Your task to perform on an android device: open wifi settings Image 0: 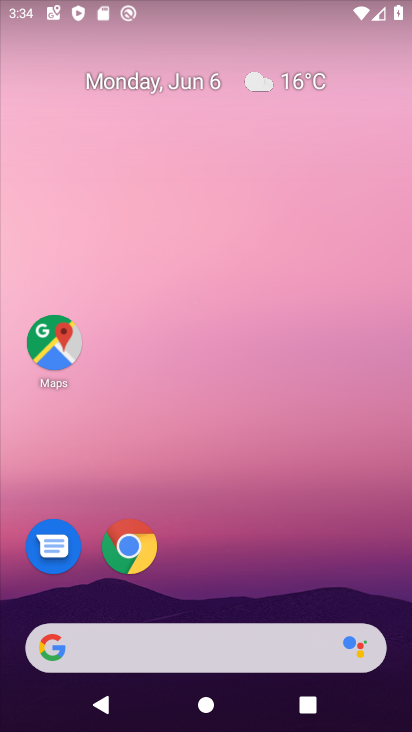
Step 0: drag from (282, 555) to (234, 1)
Your task to perform on an android device: open wifi settings Image 1: 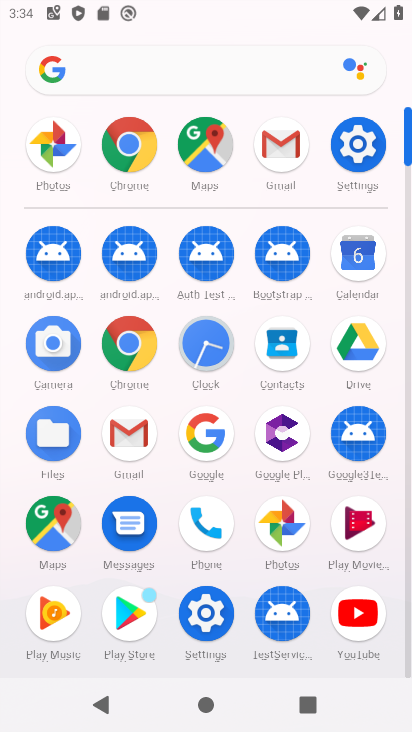
Step 1: click (361, 155)
Your task to perform on an android device: open wifi settings Image 2: 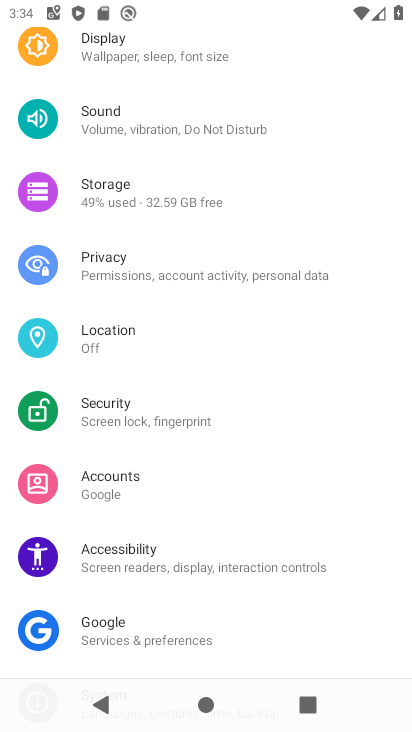
Step 2: drag from (185, 225) to (228, 655)
Your task to perform on an android device: open wifi settings Image 3: 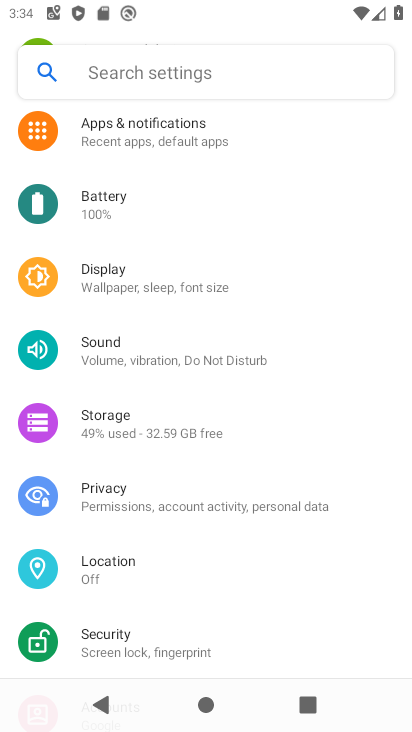
Step 3: drag from (182, 168) to (238, 642)
Your task to perform on an android device: open wifi settings Image 4: 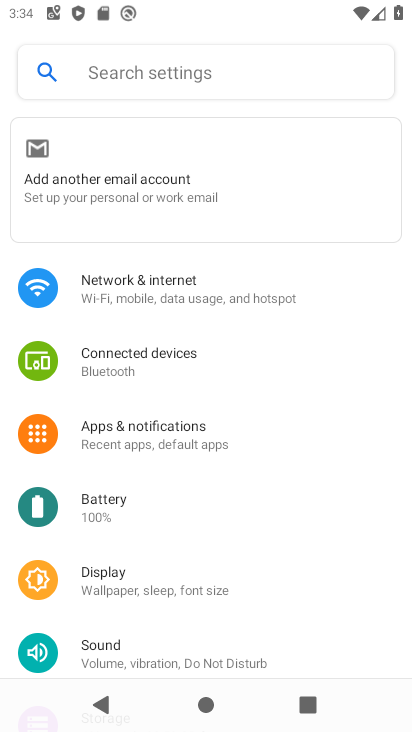
Step 4: click (154, 286)
Your task to perform on an android device: open wifi settings Image 5: 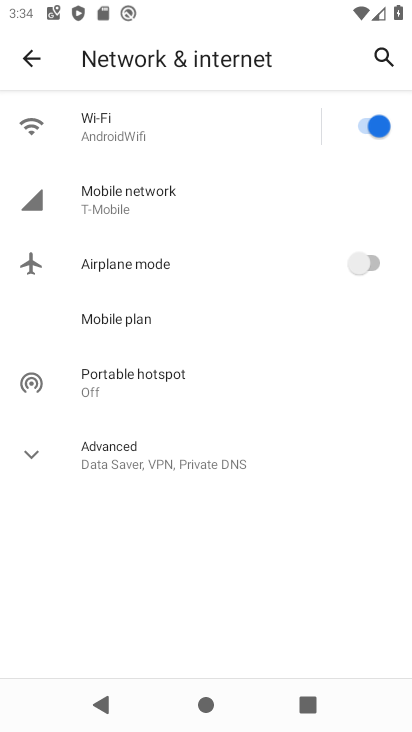
Step 5: click (111, 122)
Your task to perform on an android device: open wifi settings Image 6: 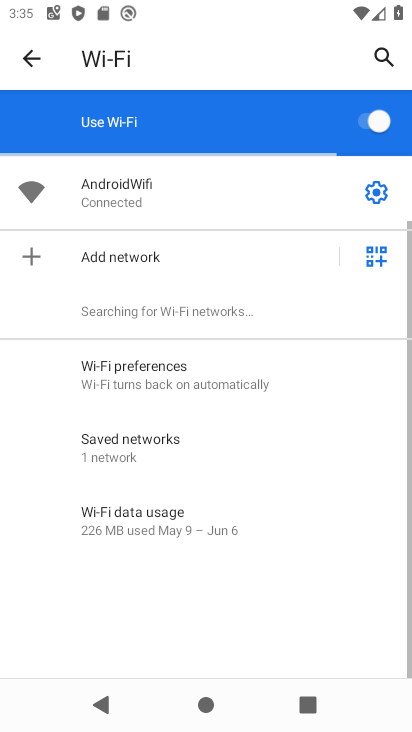
Step 6: task complete